Your task to perform on an android device: set an alarm Image 0: 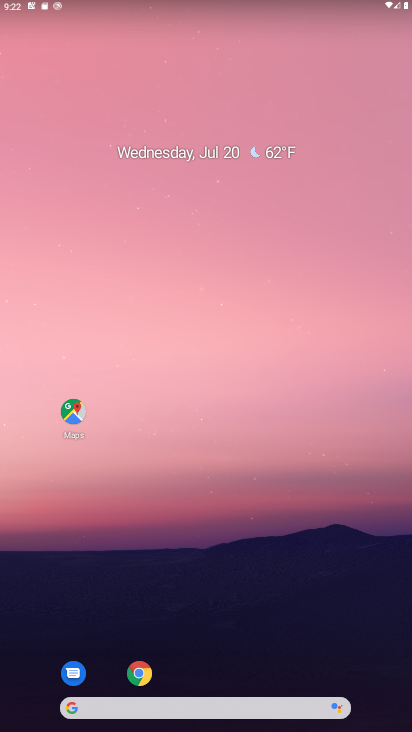
Step 0: drag from (359, 506) to (302, 189)
Your task to perform on an android device: set an alarm Image 1: 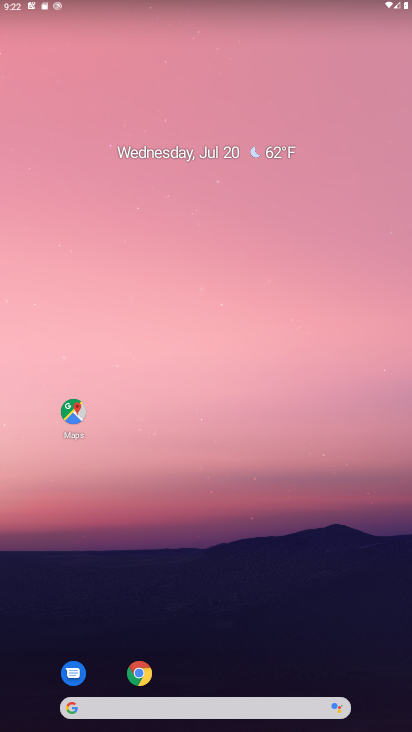
Step 1: drag from (395, 713) to (316, 201)
Your task to perform on an android device: set an alarm Image 2: 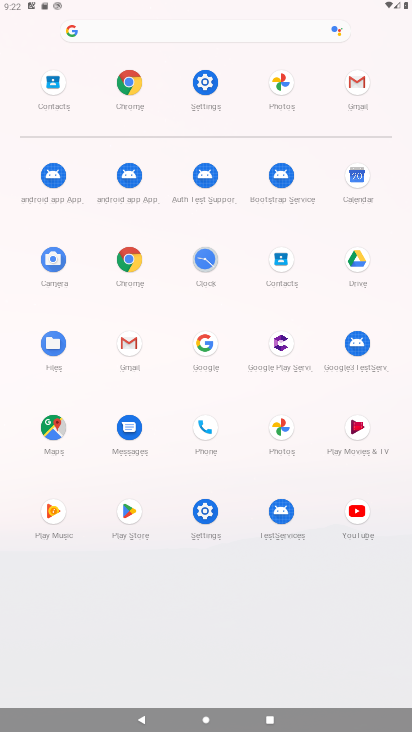
Step 2: click (204, 262)
Your task to perform on an android device: set an alarm Image 3: 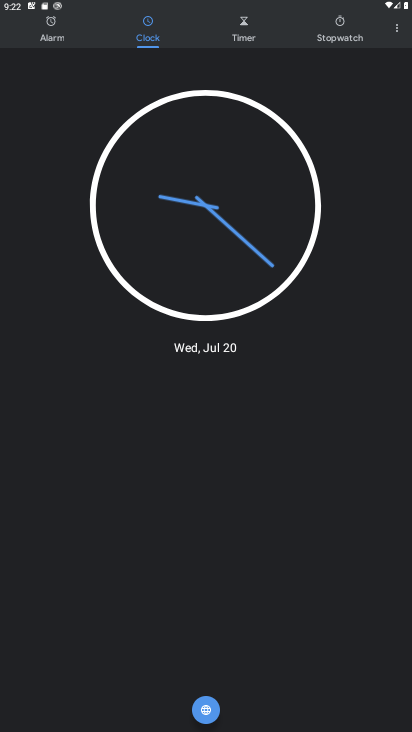
Step 3: click (40, 25)
Your task to perform on an android device: set an alarm Image 4: 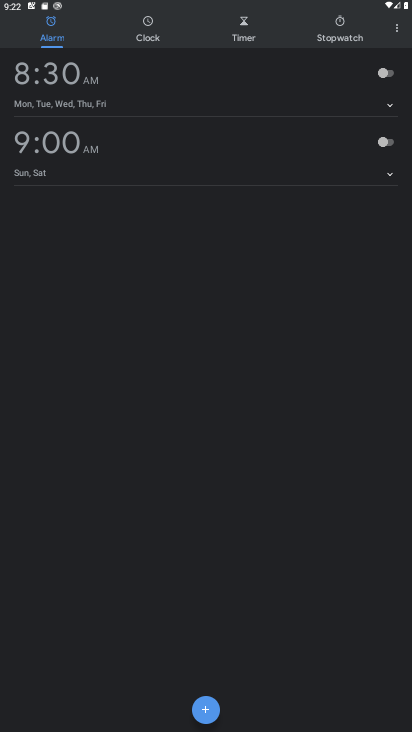
Step 4: click (384, 73)
Your task to perform on an android device: set an alarm Image 5: 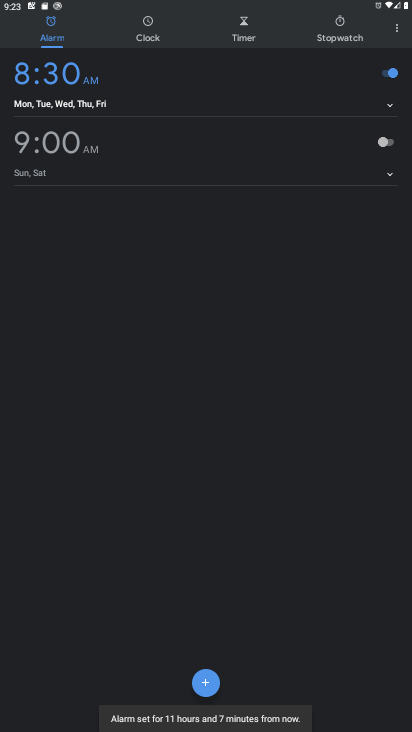
Step 5: task complete